Your task to perform on an android device: turn off picture-in-picture Image 0: 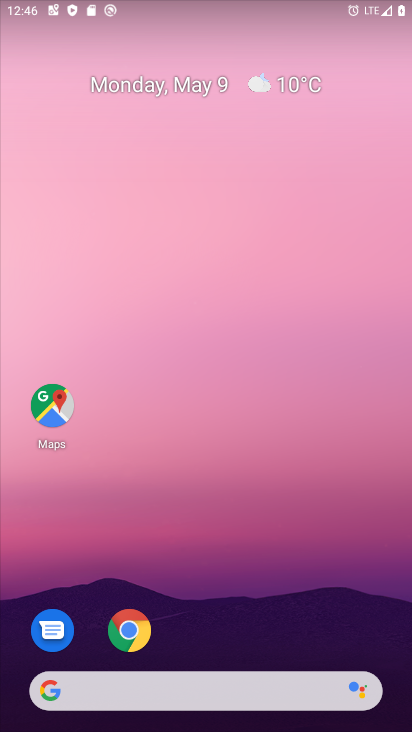
Step 0: drag from (330, 624) to (318, 49)
Your task to perform on an android device: turn off picture-in-picture Image 1: 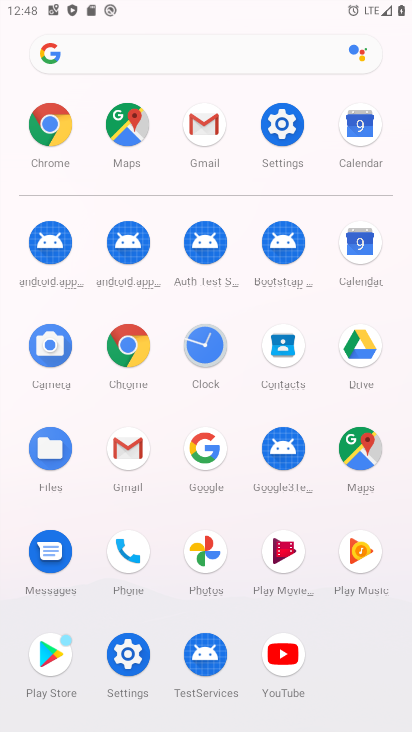
Step 1: click (130, 368)
Your task to perform on an android device: turn off picture-in-picture Image 2: 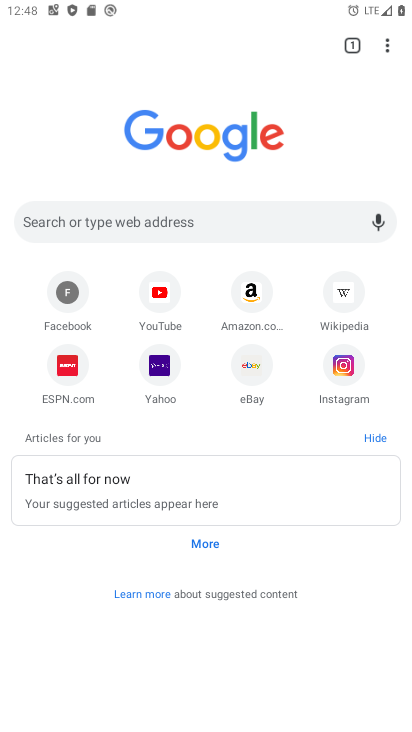
Step 2: task complete